Your task to perform on an android device: Open Chrome and go to the settings page Image 0: 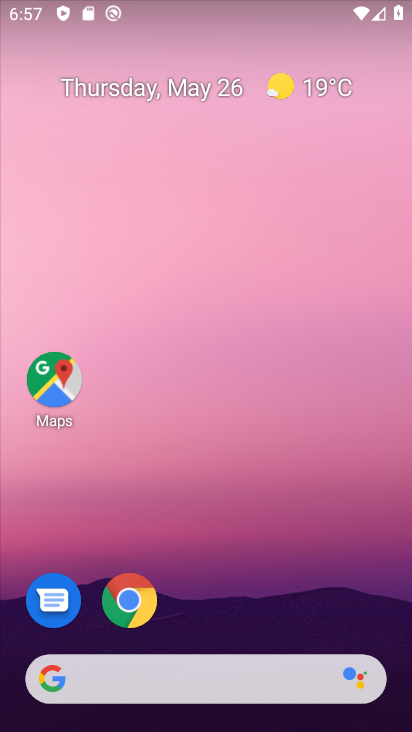
Step 0: drag from (224, 706) to (314, 105)
Your task to perform on an android device: Open Chrome and go to the settings page Image 1: 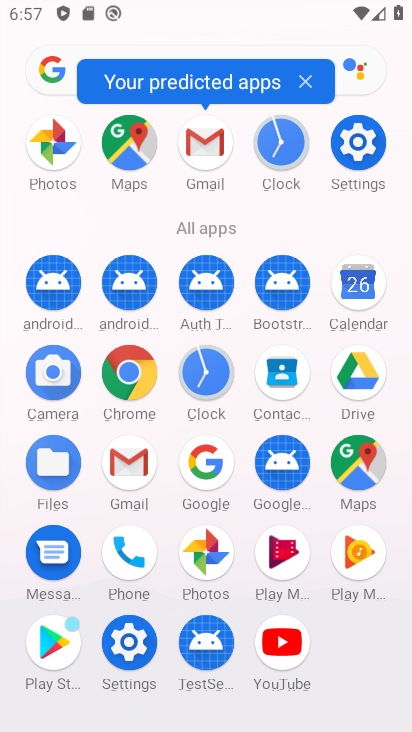
Step 1: click (137, 399)
Your task to perform on an android device: Open Chrome and go to the settings page Image 2: 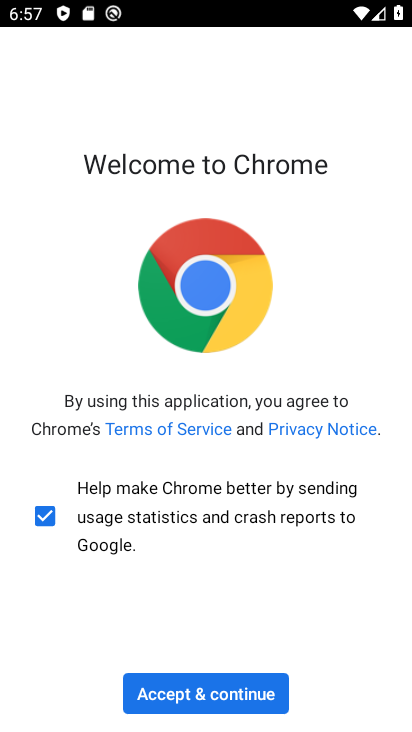
Step 2: click (227, 685)
Your task to perform on an android device: Open Chrome and go to the settings page Image 3: 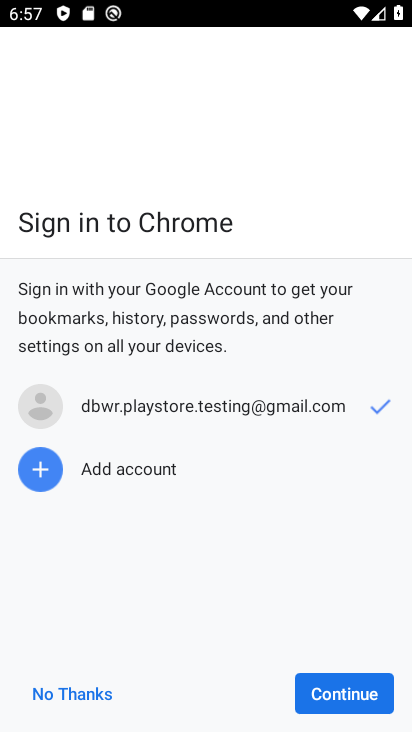
Step 3: click (316, 702)
Your task to perform on an android device: Open Chrome and go to the settings page Image 4: 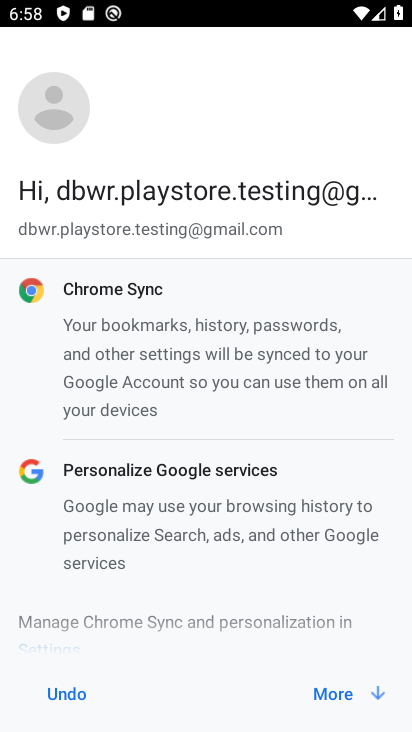
Step 4: click (375, 686)
Your task to perform on an android device: Open Chrome and go to the settings page Image 5: 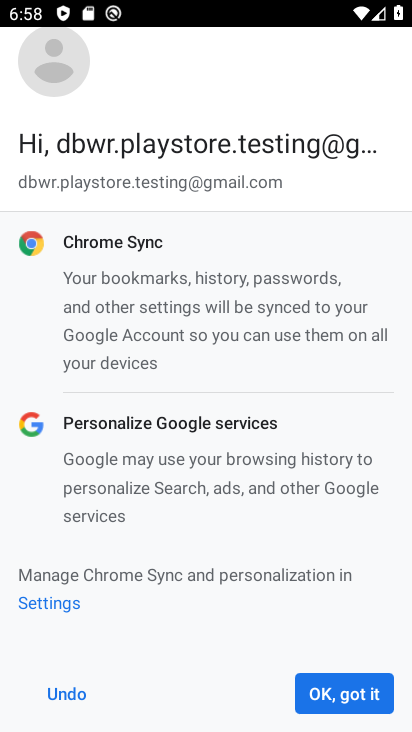
Step 5: click (374, 686)
Your task to perform on an android device: Open Chrome and go to the settings page Image 6: 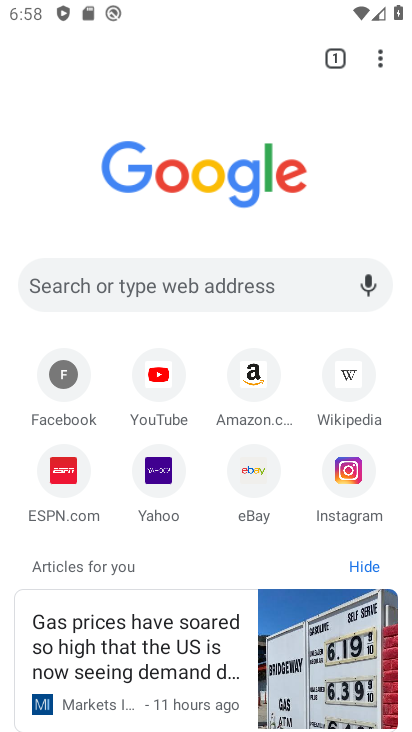
Step 6: click (375, 70)
Your task to perform on an android device: Open Chrome and go to the settings page Image 7: 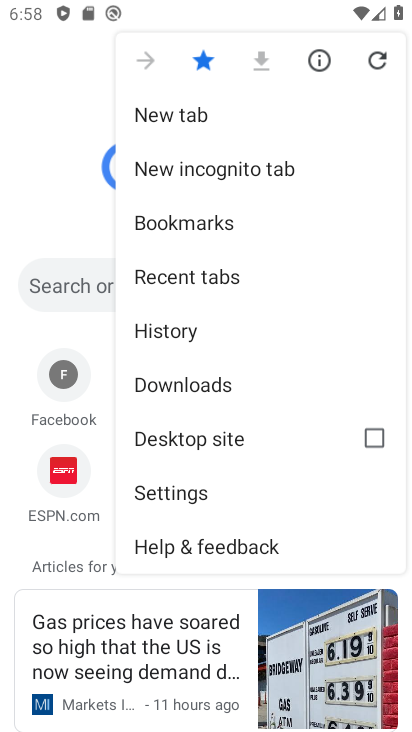
Step 7: click (224, 496)
Your task to perform on an android device: Open Chrome and go to the settings page Image 8: 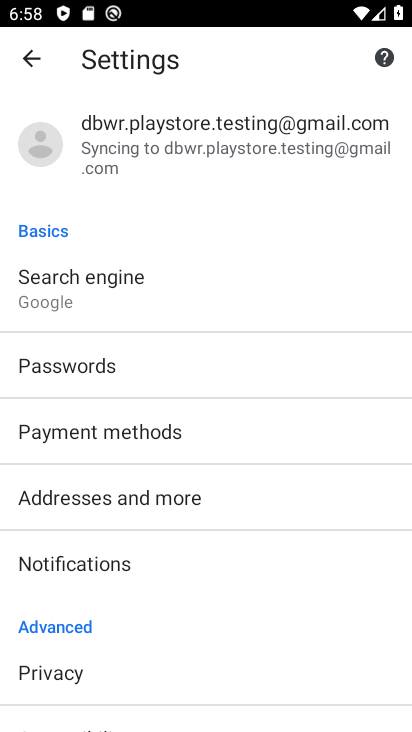
Step 8: task complete